Your task to perform on an android device: Open Android settings Image 0: 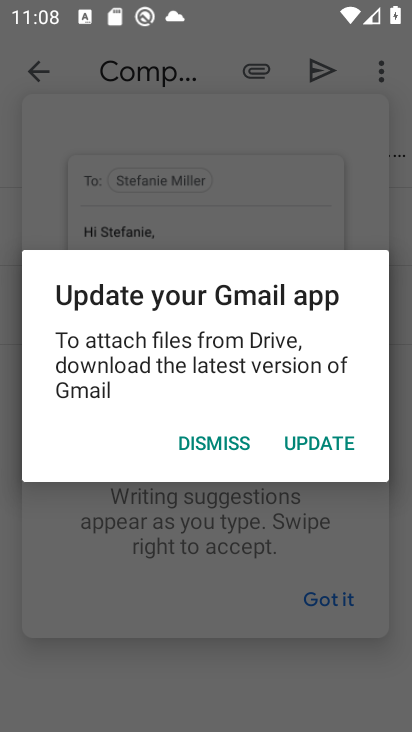
Step 0: press home button
Your task to perform on an android device: Open Android settings Image 1: 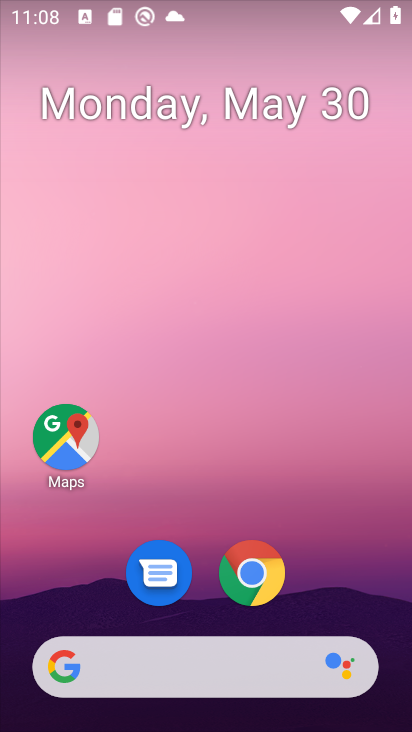
Step 1: drag from (233, 616) to (346, 64)
Your task to perform on an android device: Open Android settings Image 2: 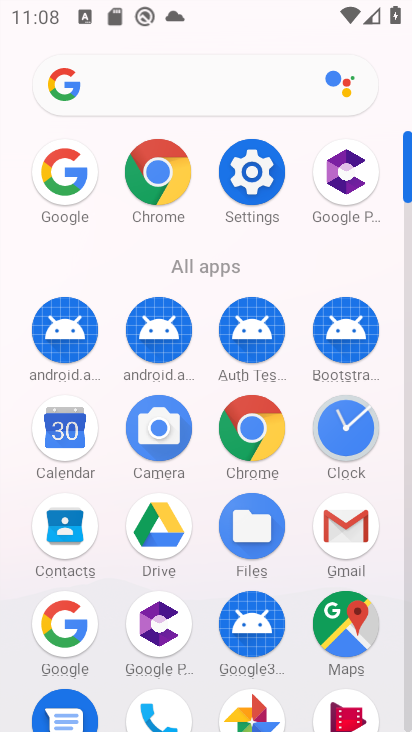
Step 2: click (260, 181)
Your task to perform on an android device: Open Android settings Image 3: 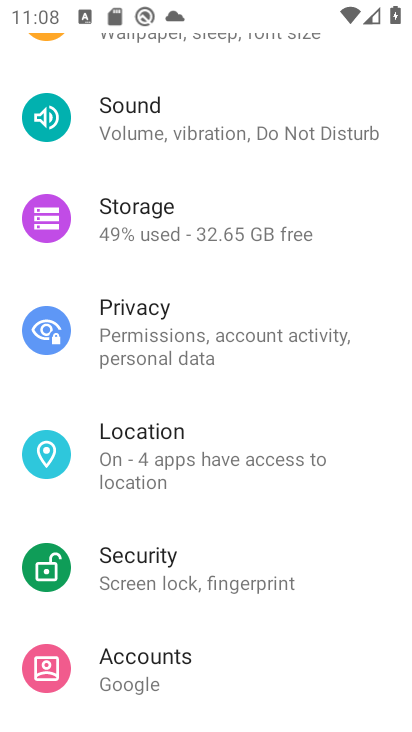
Step 3: drag from (182, 567) to (258, 81)
Your task to perform on an android device: Open Android settings Image 4: 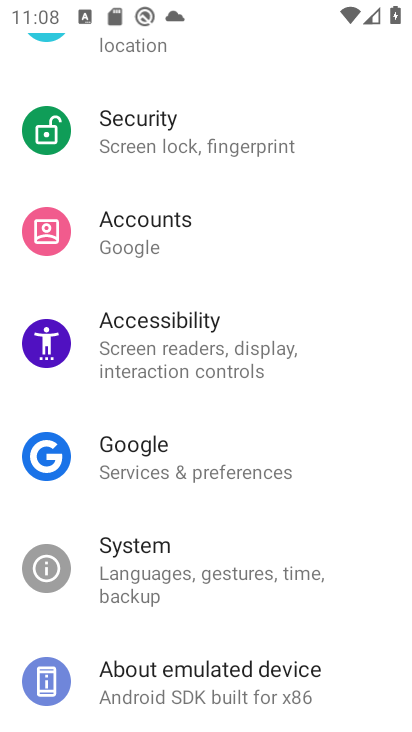
Step 4: click (171, 688)
Your task to perform on an android device: Open Android settings Image 5: 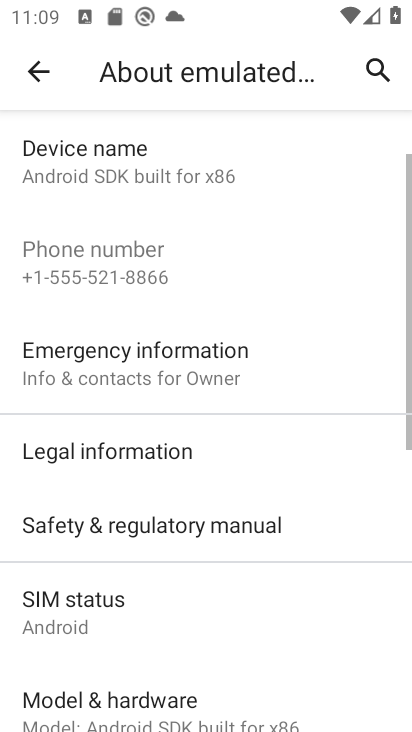
Step 5: drag from (172, 515) to (227, 178)
Your task to perform on an android device: Open Android settings Image 6: 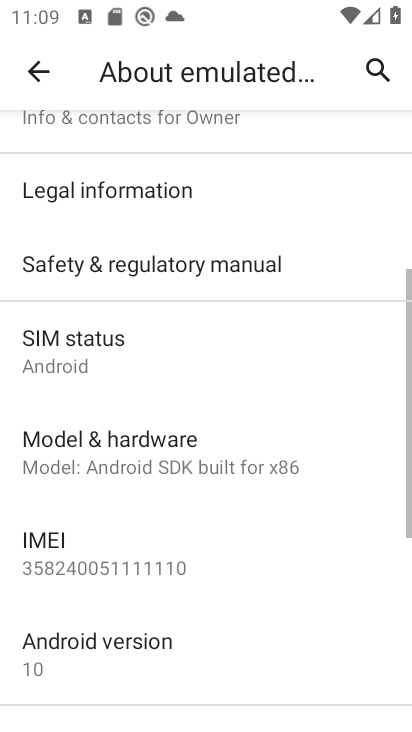
Step 6: click (146, 656)
Your task to perform on an android device: Open Android settings Image 7: 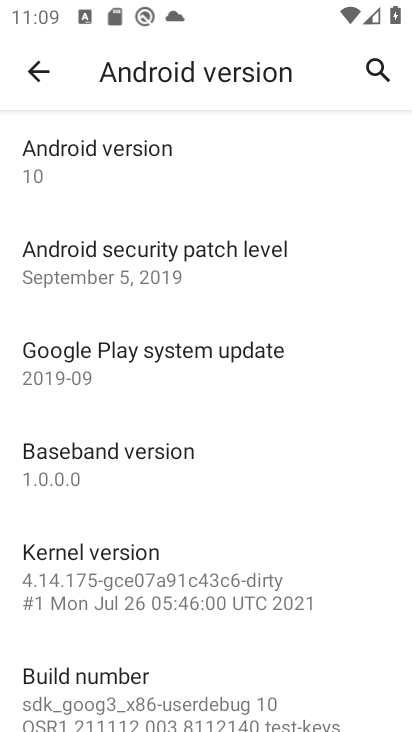
Step 7: task complete